Your task to perform on an android device: Open wifi settings Image 0: 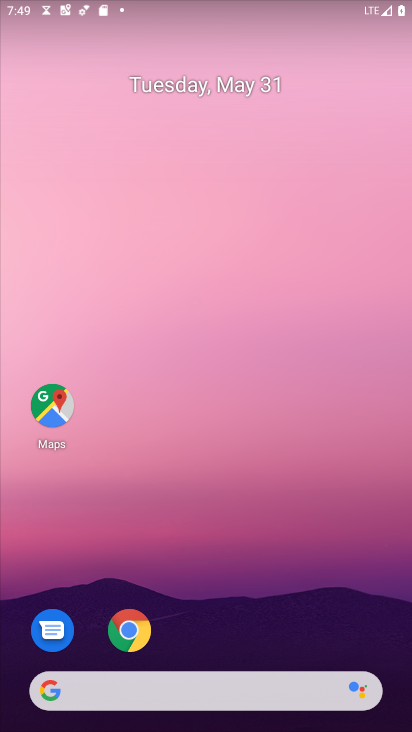
Step 0: drag from (279, 584) to (243, 215)
Your task to perform on an android device: Open wifi settings Image 1: 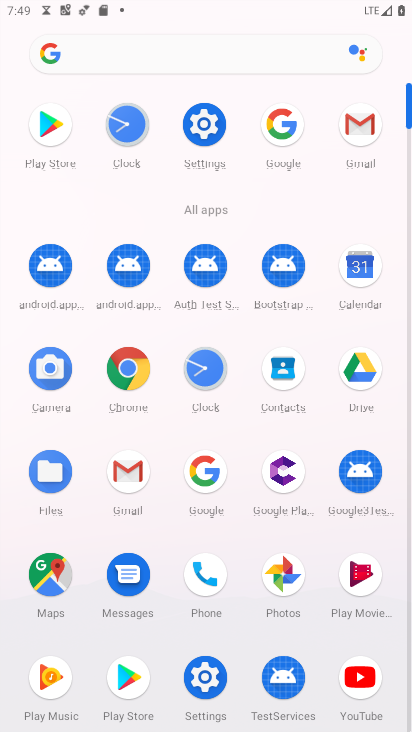
Step 1: click (204, 125)
Your task to perform on an android device: Open wifi settings Image 2: 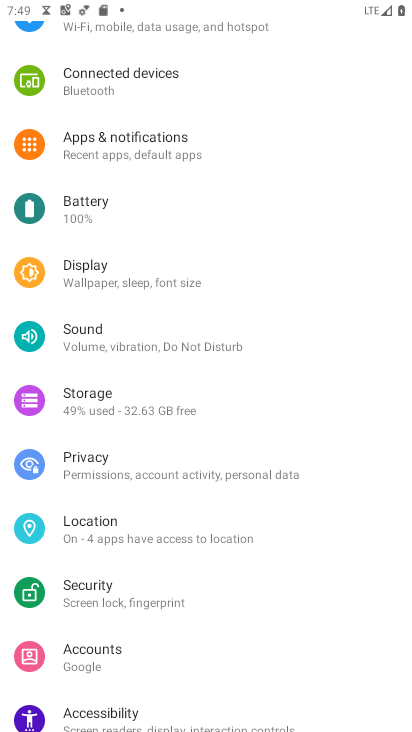
Step 2: drag from (135, 176) to (129, 240)
Your task to perform on an android device: Open wifi settings Image 3: 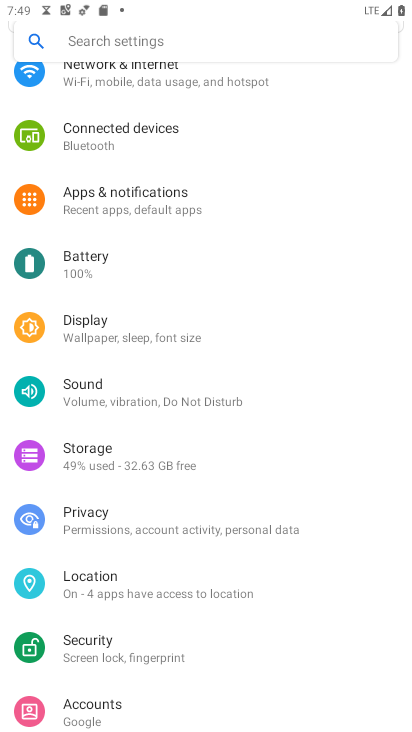
Step 3: drag from (166, 143) to (175, 250)
Your task to perform on an android device: Open wifi settings Image 4: 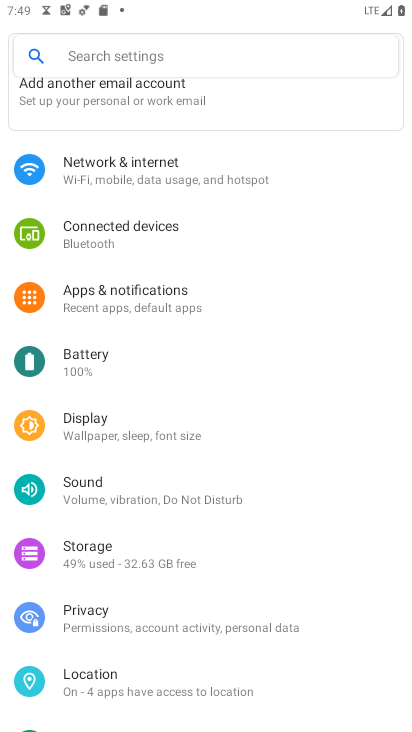
Step 4: click (123, 174)
Your task to perform on an android device: Open wifi settings Image 5: 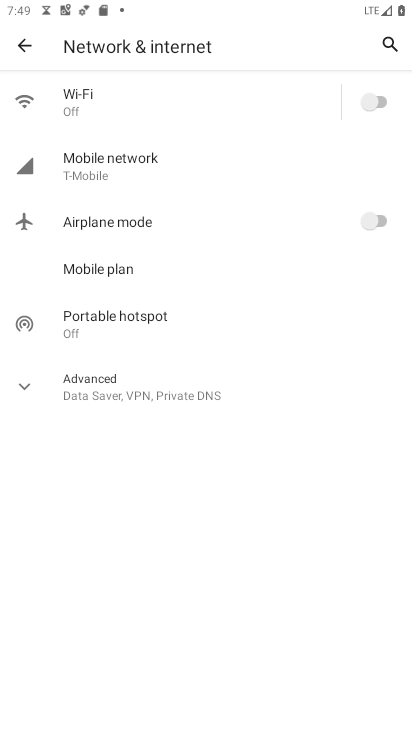
Step 5: click (88, 104)
Your task to perform on an android device: Open wifi settings Image 6: 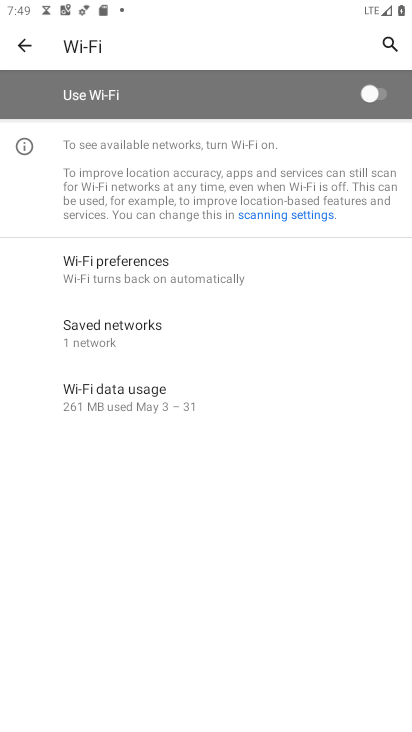
Step 6: task complete